Your task to perform on an android device: Open Youtube and go to "Your channel" Image 0: 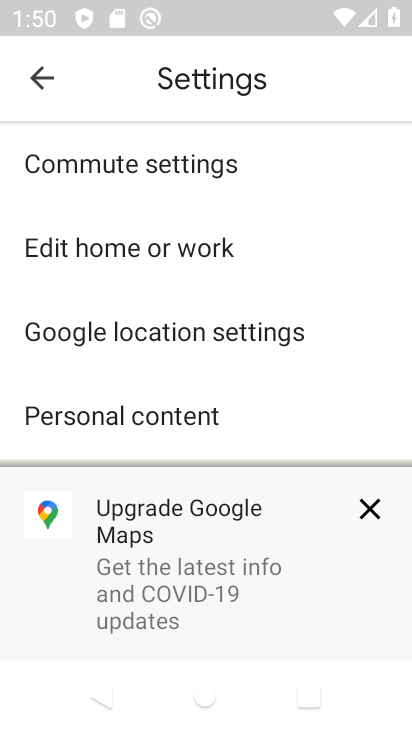
Step 0: press home button
Your task to perform on an android device: Open Youtube and go to "Your channel" Image 1: 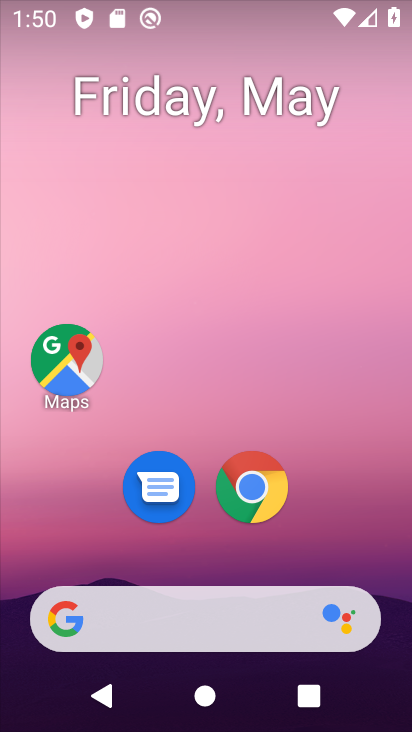
Step 1: drag from (376, 577) to (350, 32)
Your task to perform on an android device: Open Youtube and go to "Your channel" Image 2: 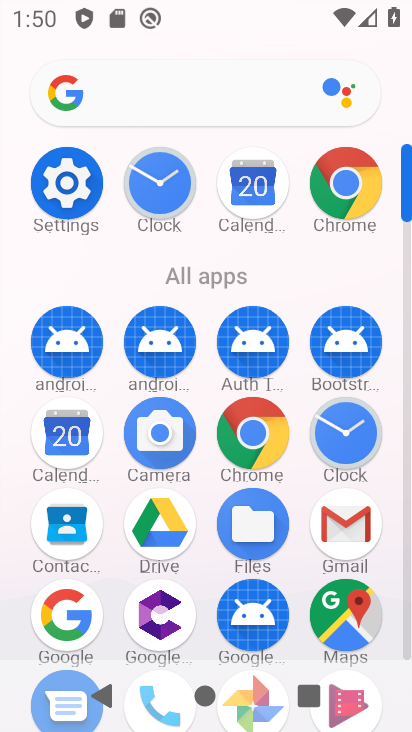
Step 2: drag from (405, 632) to (400, 584)
Your task to perform on an android device: Open Youtube and go to "Your channel" Image 3: 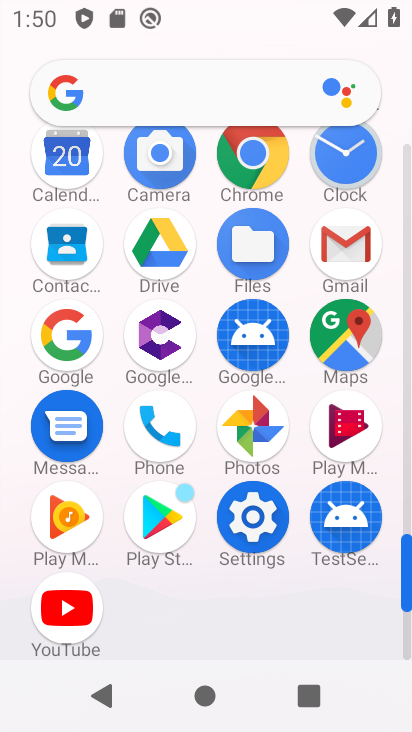
Step 3: click (62, 615)
Your task to perform on an android device: Open Youtube and go to "Your channel" Image 4: 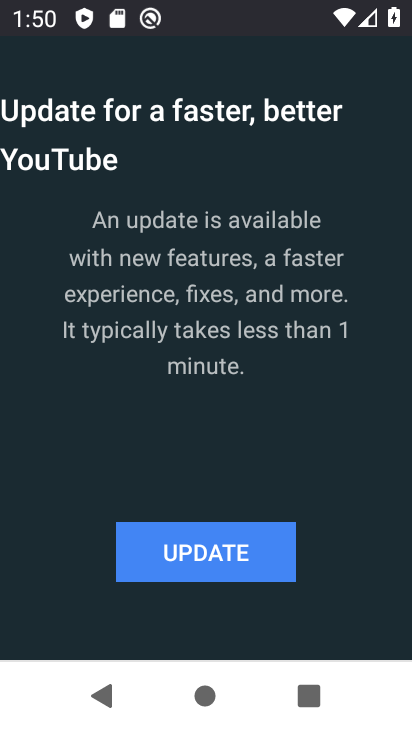
Step 4: click (231, 560)
Your task to perform on an android device: Open Youtube and go to "Your channel" Image 5: 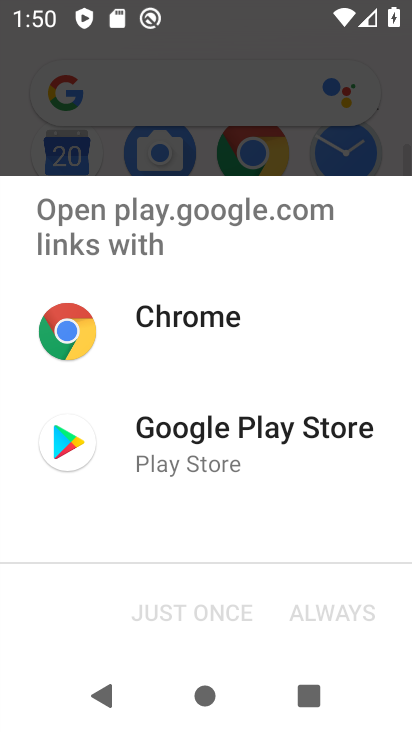
Step 5: click (115, 453)
Your task to perform on an android device: Open Youtube and go to "Your channel" Image 6: 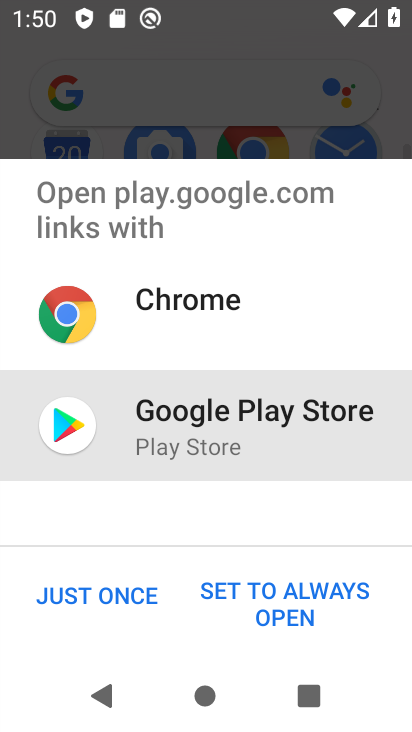
Step 6: click (115, 604)
Your task to perform on an android device: Open Youtube and go to "Your channel" Image 7: 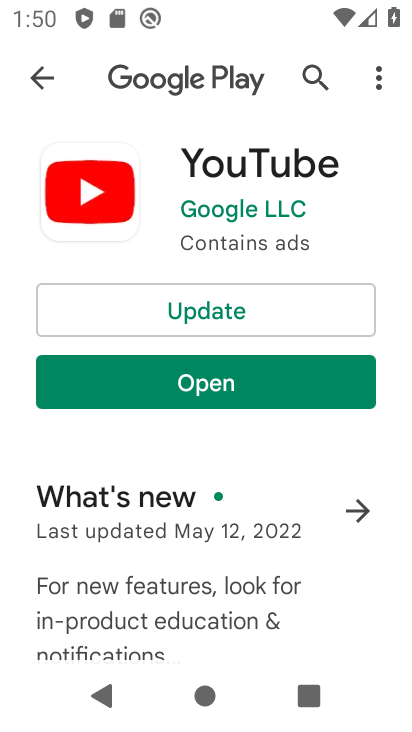
Step 7: click (203, 315)
Your task to perform on an android device: Open Youtube and go to "Your channel" Image 8: 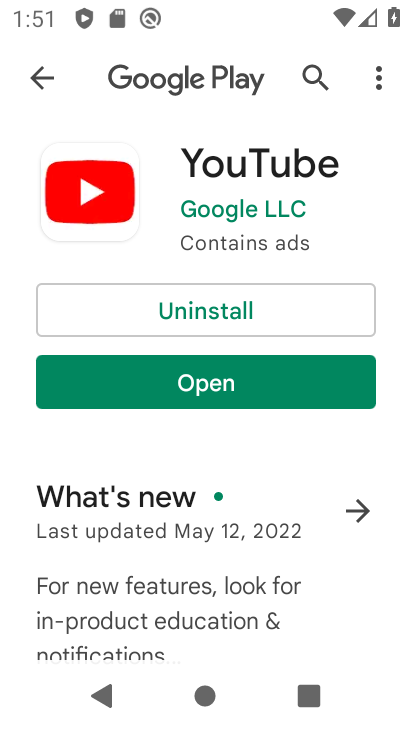
Step 8: click (212, 393)
Your task to perform on an android device: Open Youtube and go to "Your channel" Image 9: 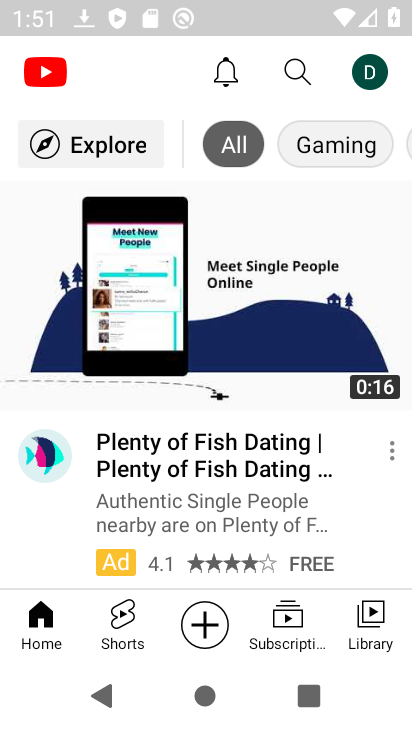
Step 9: click (369, 79)
Your task to perform on an android device: Open Youtube and go to "Your channel" Image 10: 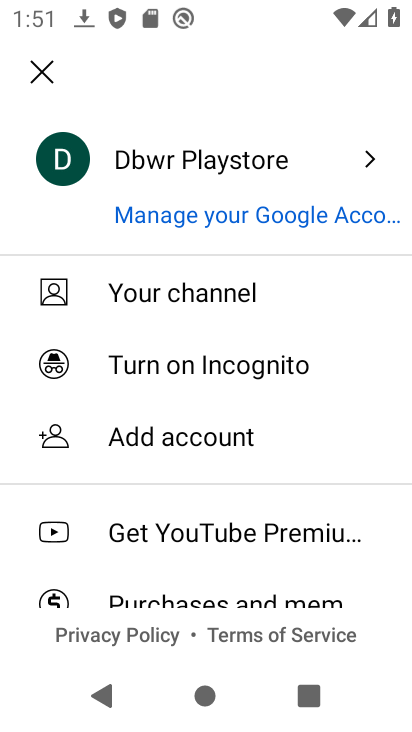
Step 10: click (192, 301)
Your task to perform on an android device: Open Youtube and go to "Your channel" Image 11: 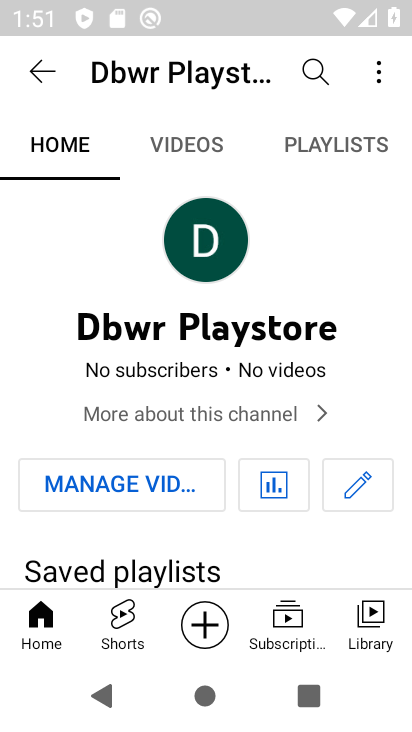
Step 11: task complete